Your task to perform on an android device: move a message to another label in the gmail app Image 0: 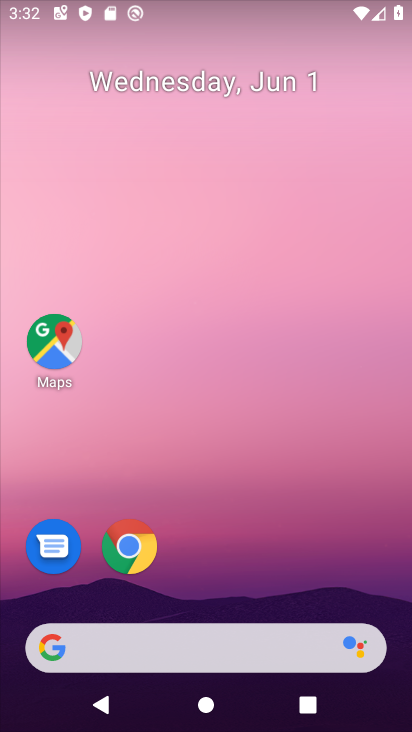
Step 0: press home button
Your task to perform on an android device: move a message to another label in the gmail app Image 1: 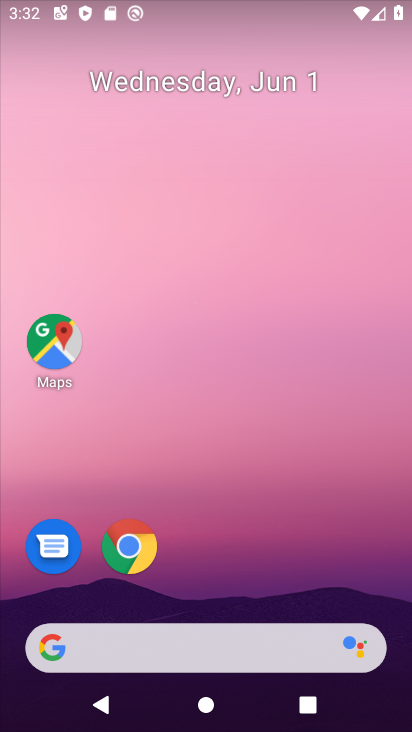
Step 1: drag from (339, 527) to (306, 152)
Your task to perform on an android device: move a message to another label in the gmail app Image 2: 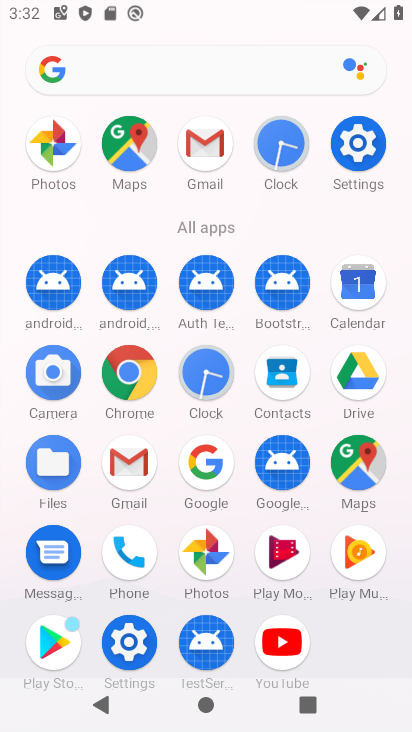
Step 2: click (126, 464)
Your task to perform on an android device: move a message to another label in the gmail app Image 3: 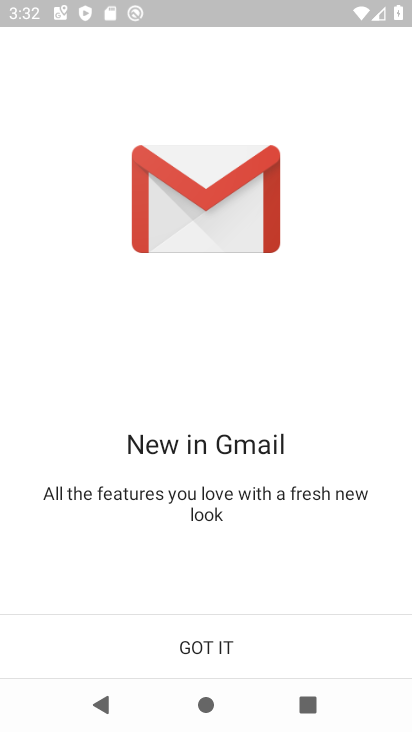
Step 3: click (223, 646)
Your task to perform on an android device: move a message to another label in the gmail app Image 4: 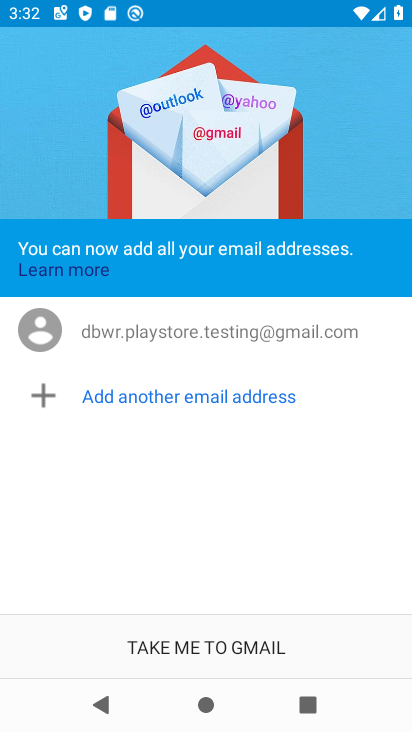
Step 4: click (225, 641)
Your task to perform on an android device: move a message to another label in the gmail app Image 5: 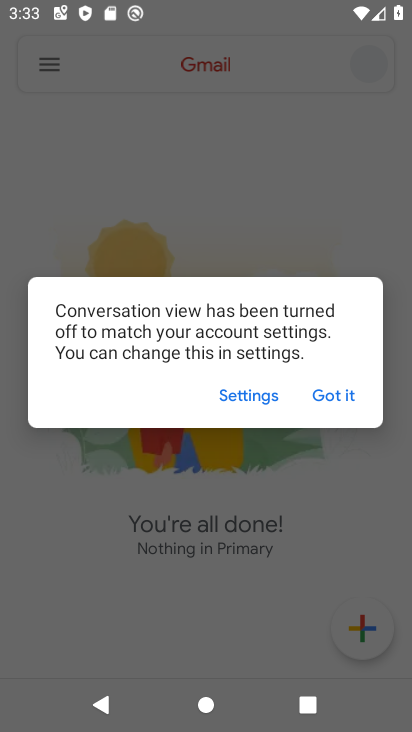
Step 5: click (351, 400)
Your task to perform on an android device: move a message to another label in the gmail app Image 6: 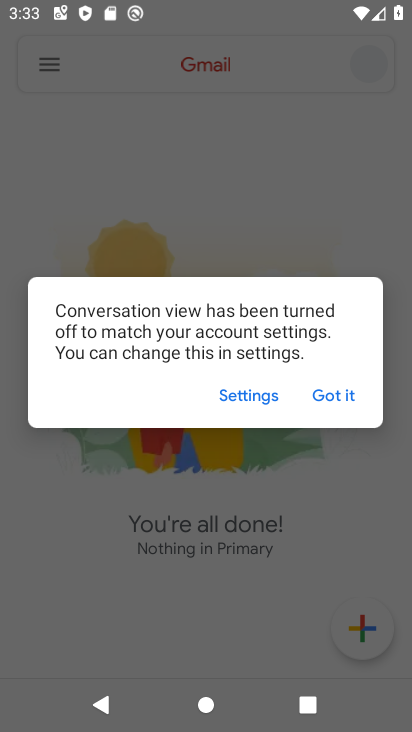
Step 6: click (329, 400)
Your task to perform on an android device: move a message to another label in the gmail app Image 7: 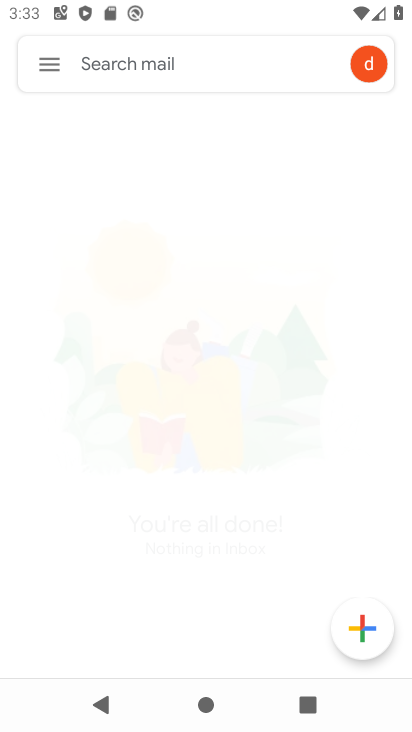
Step 7: click (53, 61)
Your task to perform on an android device: move a message to another label in the gmail app Image 8: 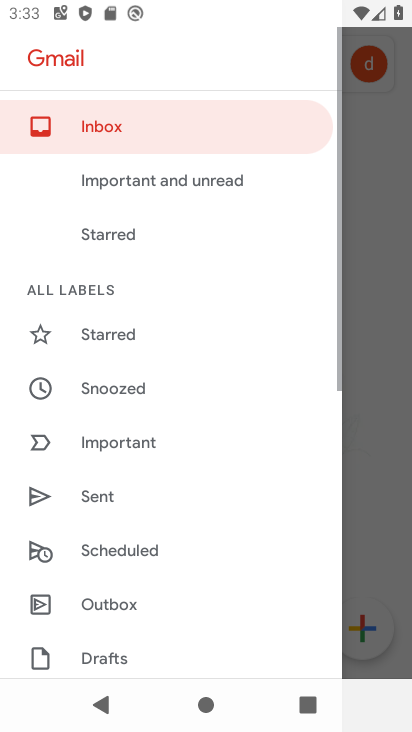
Step 8: drag from (143, 527) to (142, 251)
Your task to perform on an android device: move a message to another label in the gmail app Image 9: 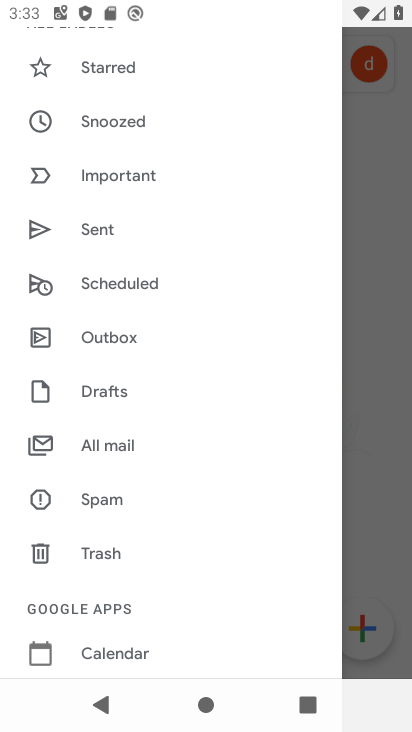
Step 9: click (93, 440)
Your task to perform on an android device: move a message to another label in the gmail app Image 10: 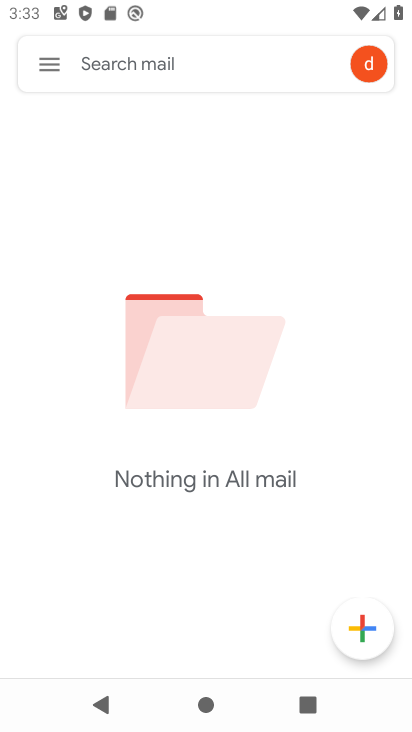
Step 10: task complete